Your task to perform on an android device: Open the web browser Image 0: 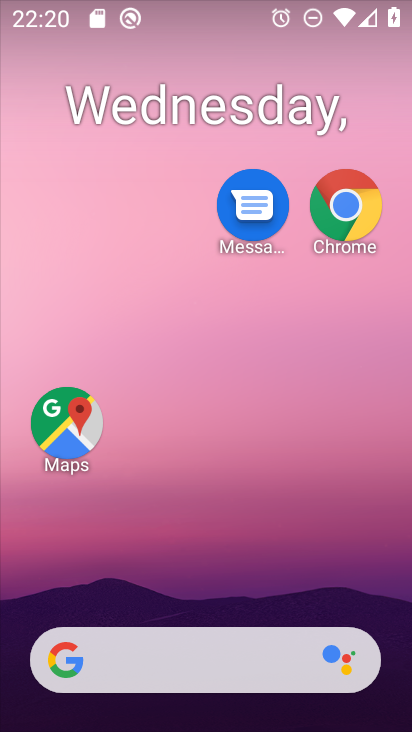
Step 0: drag from (191, 619) to (211, 53)
Your task to perform on an android device: Open the web browser Image 1: 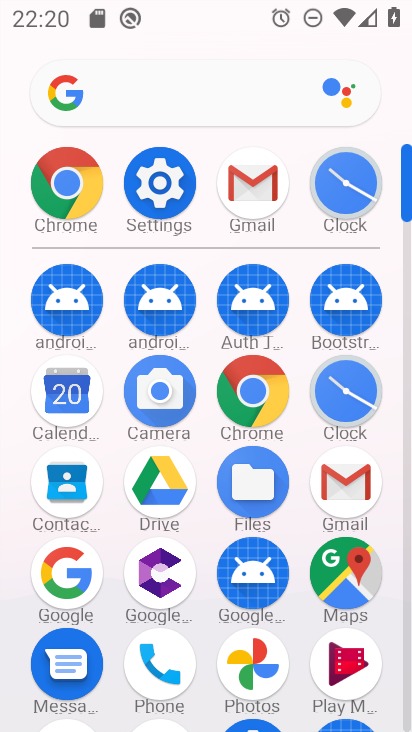
Step 1: click (251, 396)
Your task to perform on an android device: Open the web browser Image 2: 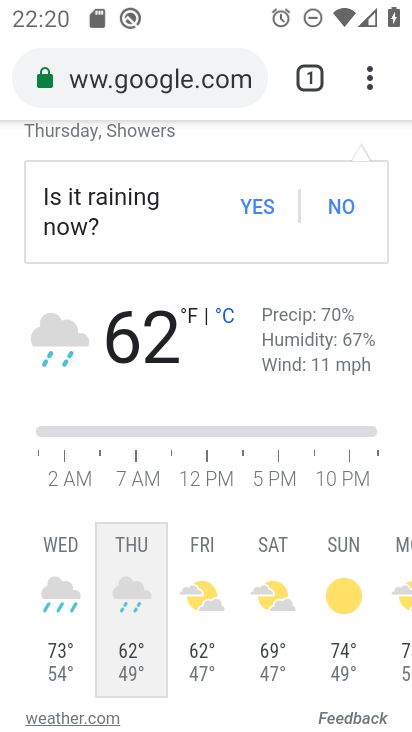
Step 2: task complete